Your task to perform on an android device: Is it going to rain tomorrow? Image 0: 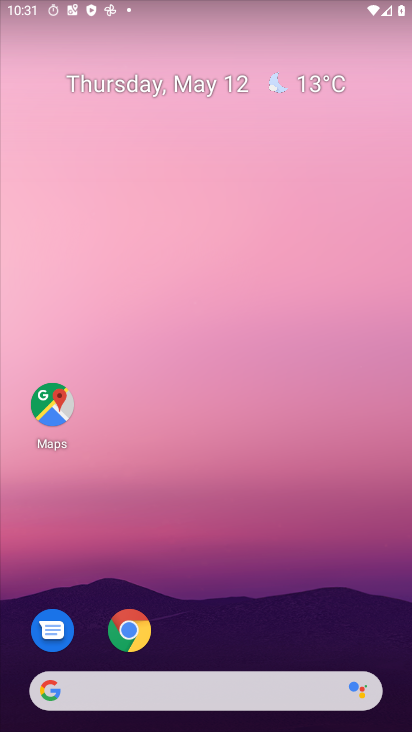
Step 0: click (305, 94)
Your task to perform on an android device: Is it going to rain tomorrow? Image 1: 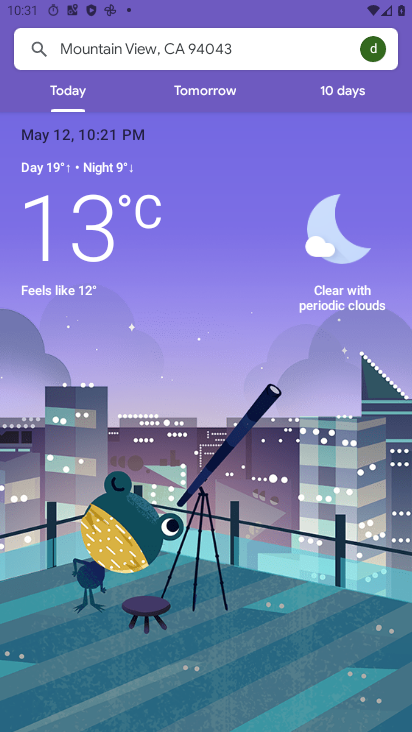
Step 1: click (199, 96)
Your task to perform on an android device: Is it going to rain tomorrow? Image 2: 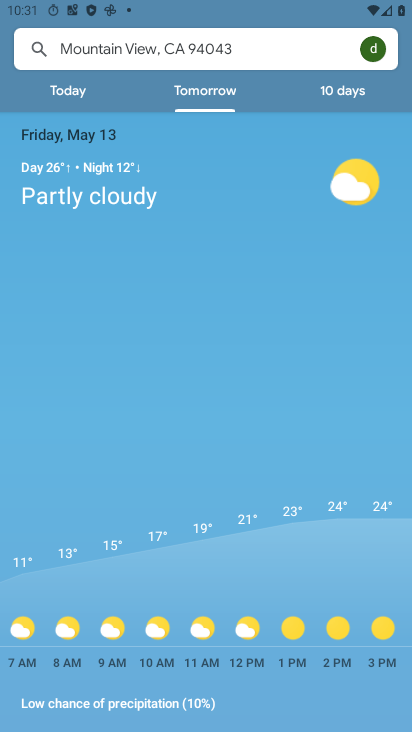
Step 2: drag from (206, 626) to (188, 159)
Your task to perform on an android device: Is it going to rain tomorrow? Image 3: 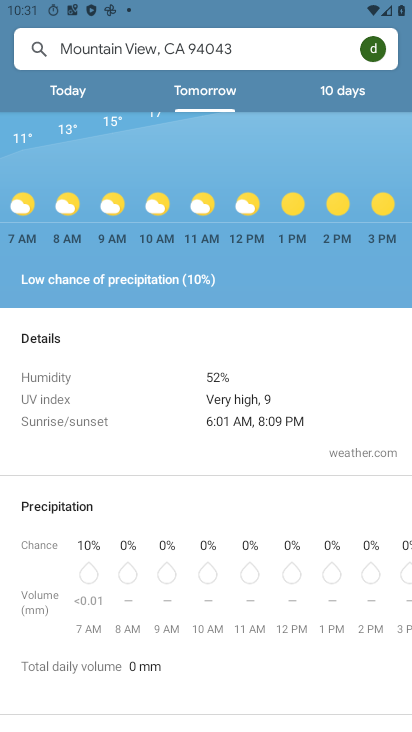
Step 3: drag from (361, 216) to (0, 257)
Your task to perform on an android device: Is it going to rain tomorrow? Image 4: 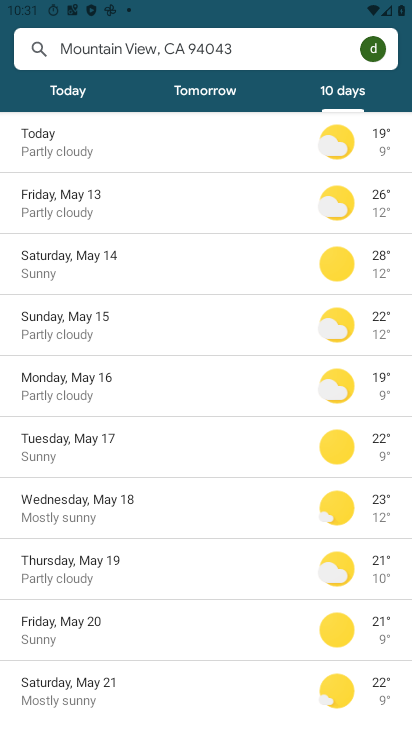
Step 4: click (192, 82)
Your task to perform on an android device: Is it going to rain tomorrow? Image 5: 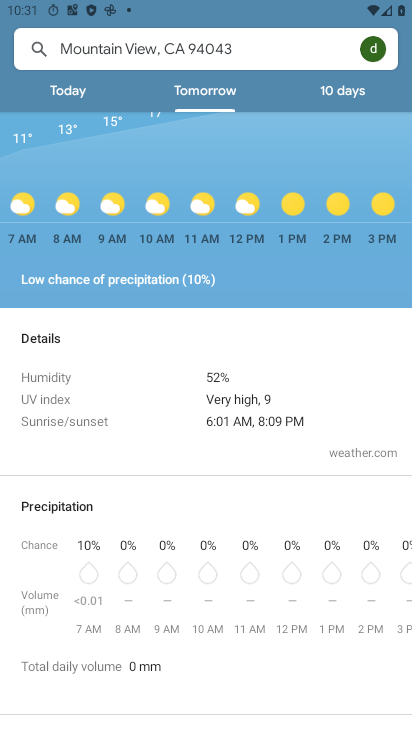
Step 5: task complete